Your task to perform on an android device: Open Yahoo.com Image 0: 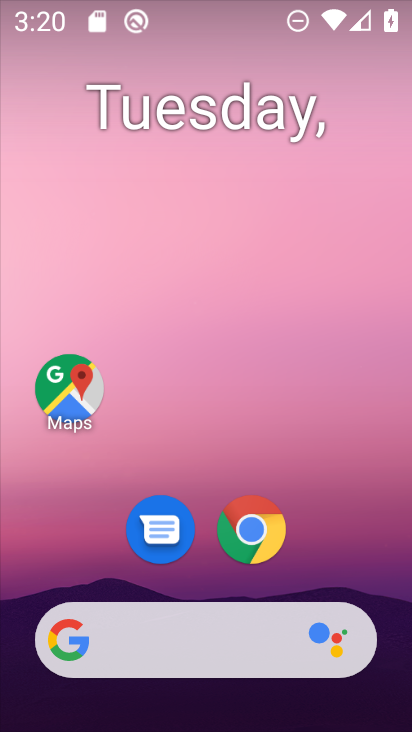
Step 0: click (252, 538)
Your task to perform on an android device: Open Yahoo.com Image 1: 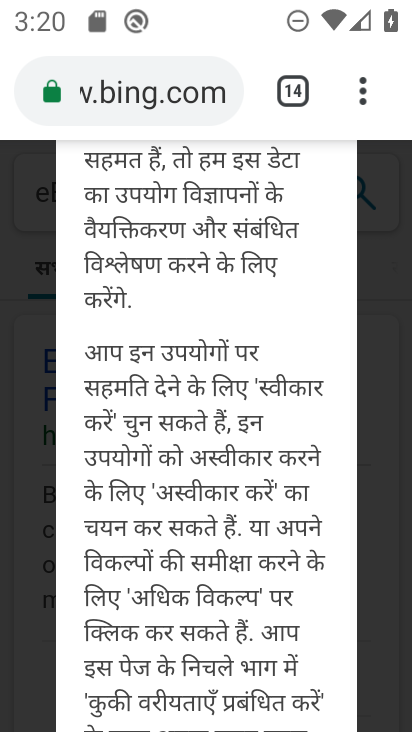
Step 1: click (372, 75)
Your task to perform on an android device: Open Yahoo.com Image 2: 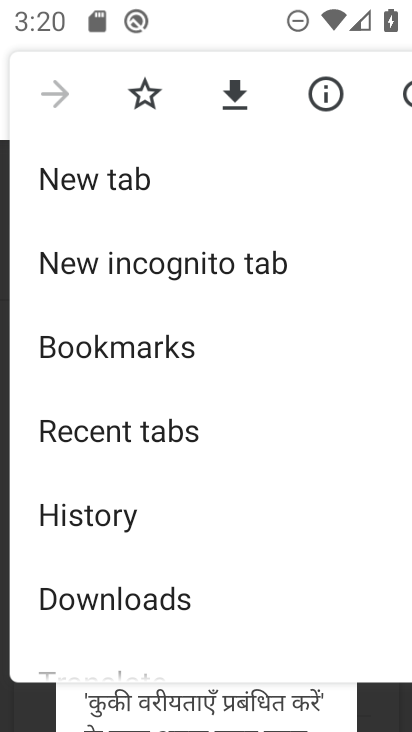
Step 2: click (120, 188)
Your task to perform on an android device: Open Yahoo.com Image 3: 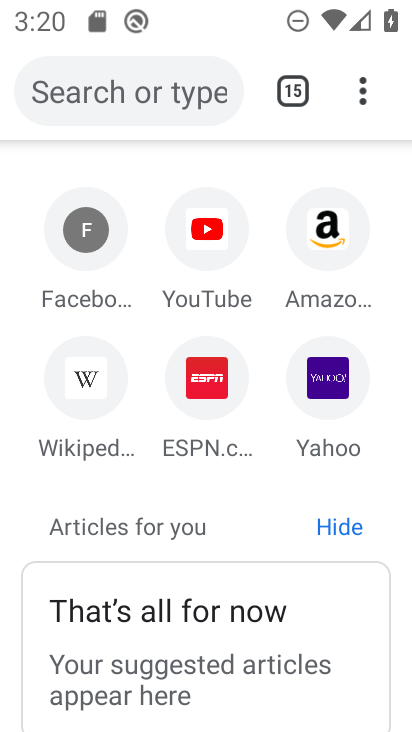
Step 3: click (324, 366)
Your task to perform on an android device: Open Yahoo.com Image 4: 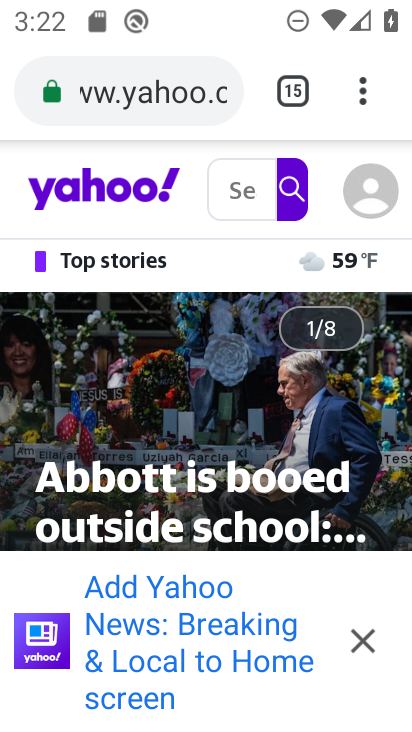
Step 4: task complete